Your task to perform on an android device: change timer sound Image 0: 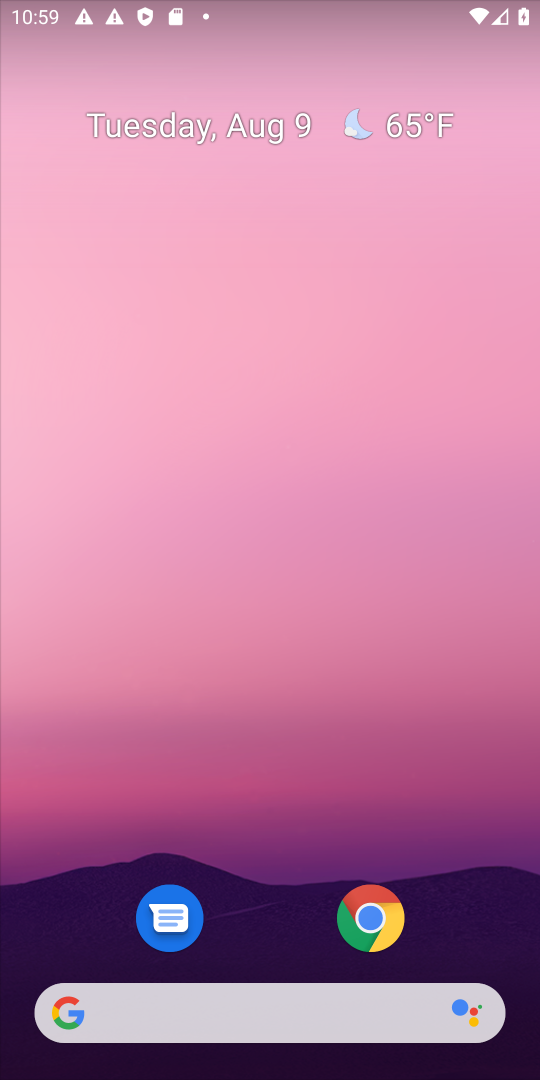
Step 0: drag from (252, 911) to (235, 139)
Your task to perform on an android device: change timer sound Image 1: 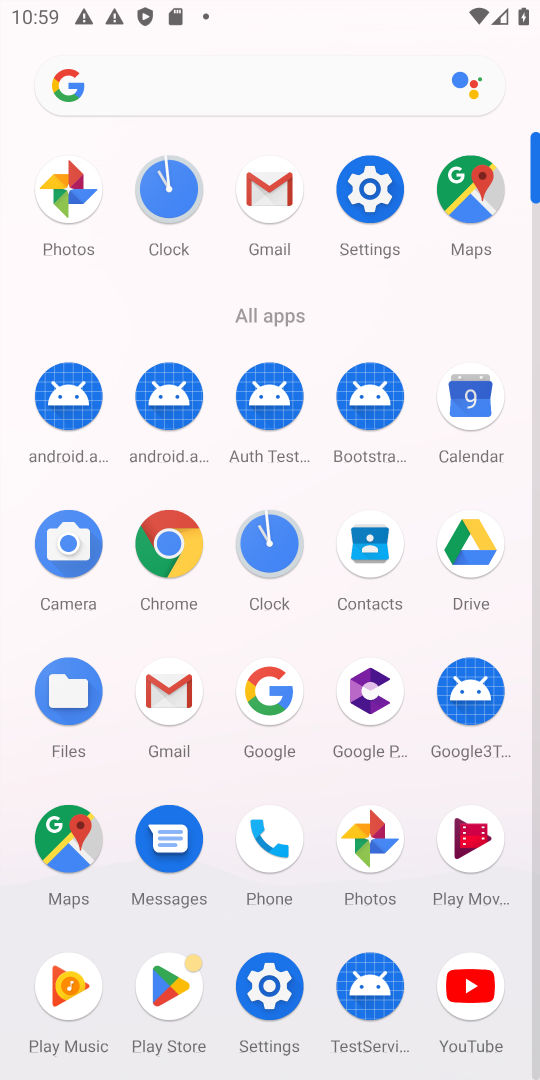
Step 1: click (274, 545)
Your task to perform on an android device: change timer sound Image 2: 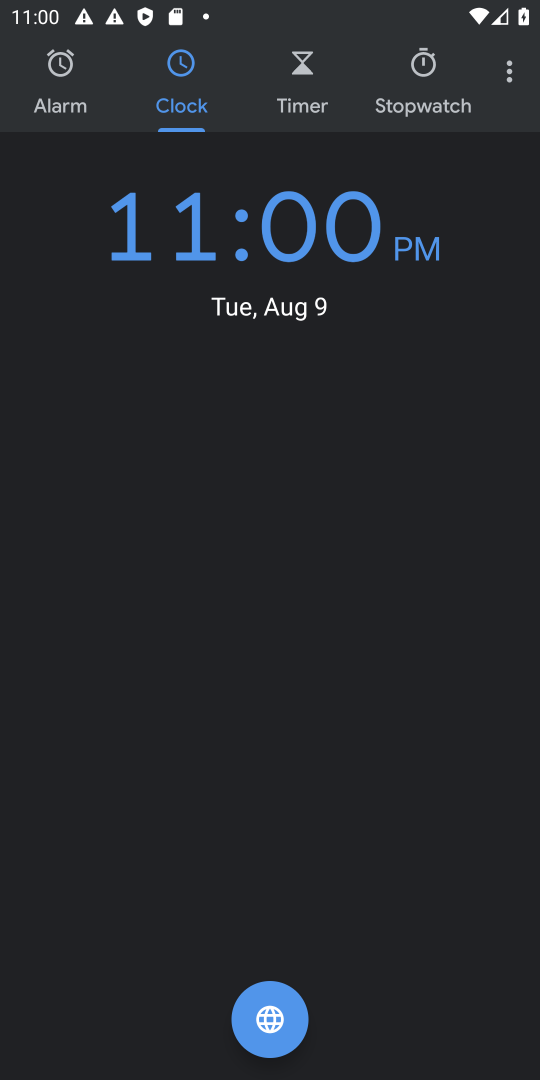
Step 2: click (517, 63)
Your task to perform on an android device: change timer sound Image 3: 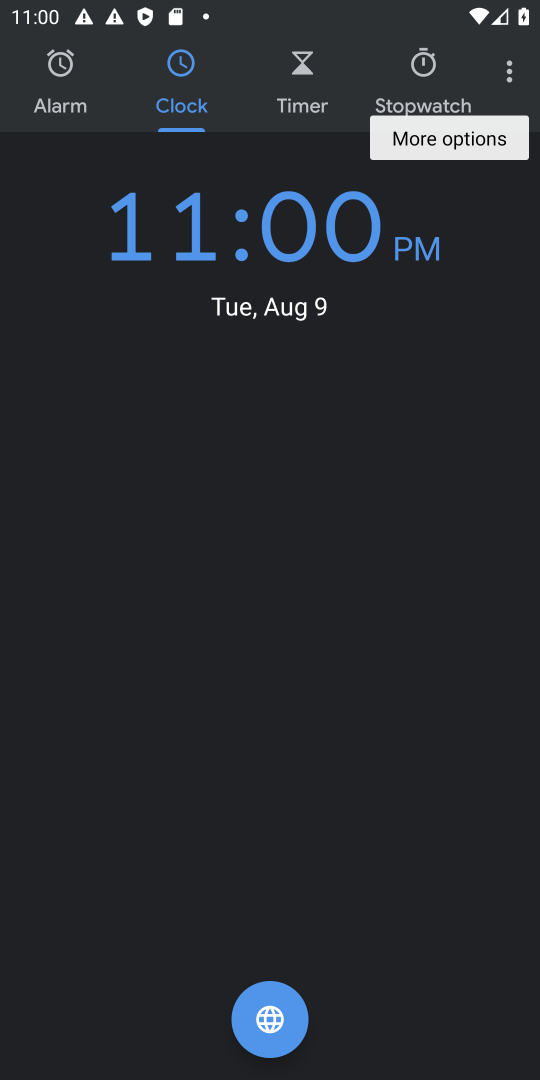
Step 3: click (508, 72)
Your task to perform on an android device: change timer sound Image 4: 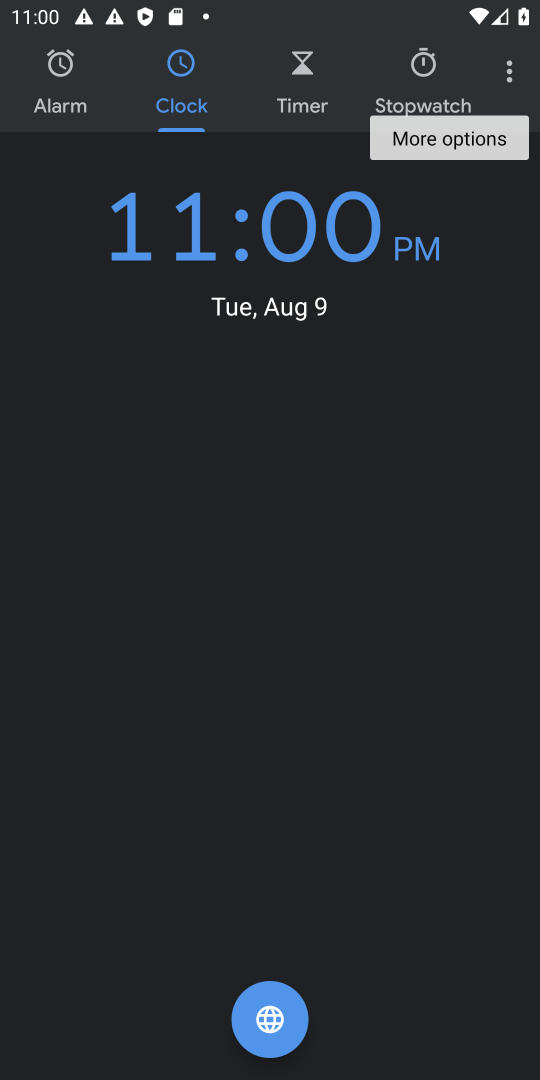
Step 4: click (500, 69)
Your task to perform on an android device: change timer sound Image 5: 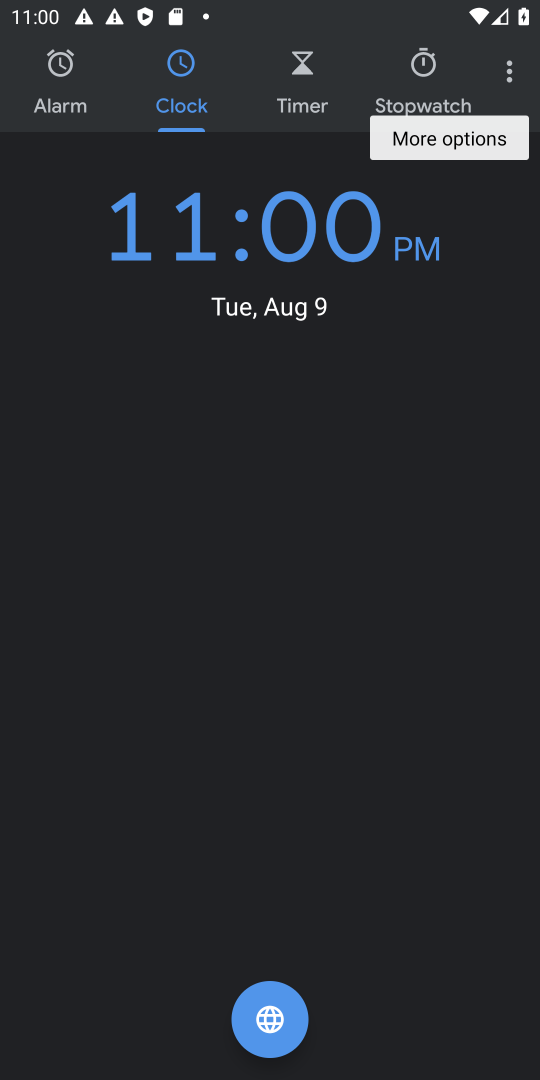
Step 5: click (498, 70)
Your task to perform on an android device: change timer sound Image 6: 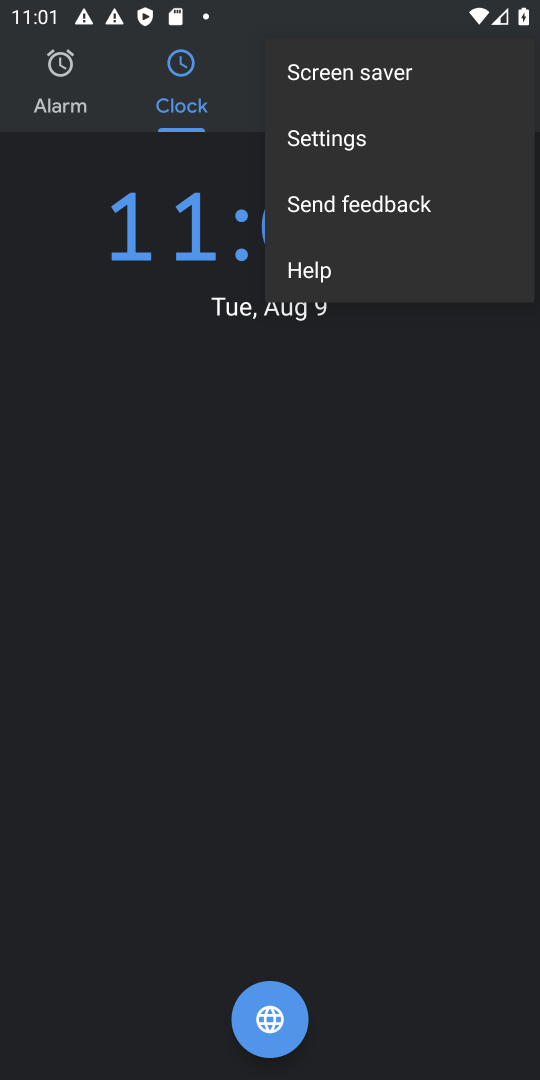
Step 6: click (318, 155)
Your task to perform on an android device: change timer sound Image 7: 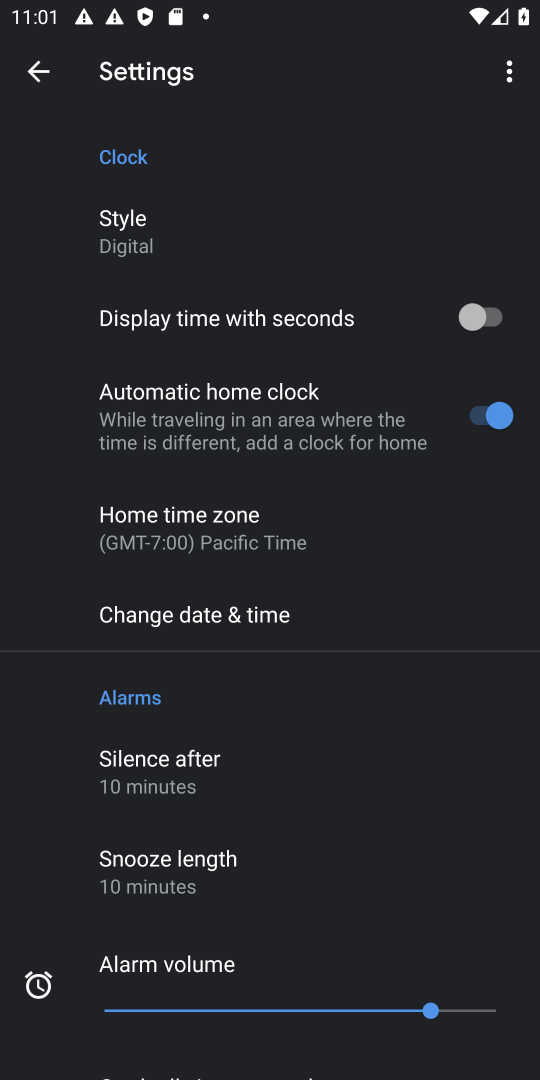
Step 7: drag from (399, 907) to (465, 456)
Your task to perform on an android device: change timer sound Image 8: 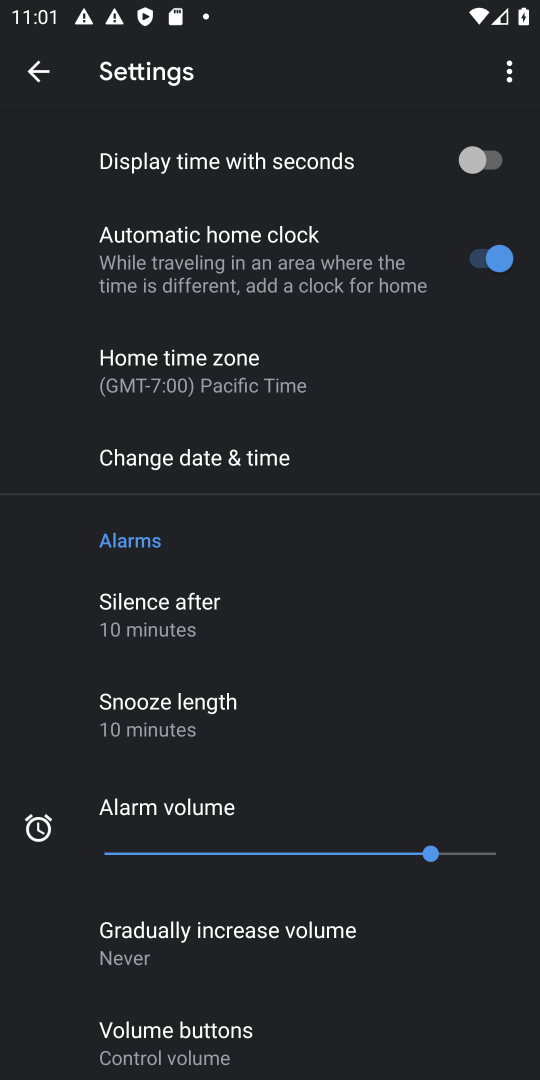
Step 8: drag from (293, 1024) to (388, 372)
Your task to perform on an android device: change timer sound Image 9: 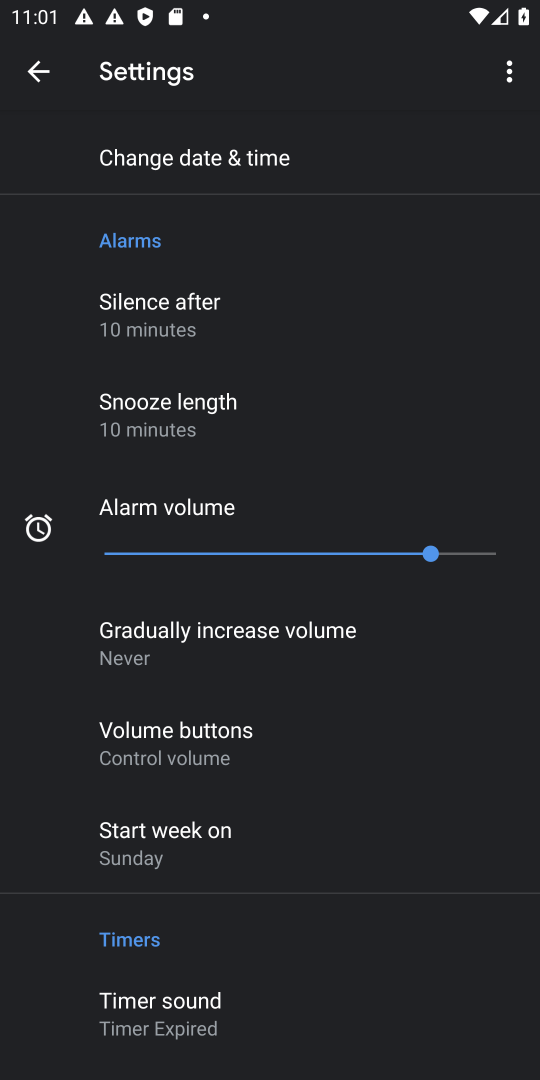
Step 9: click (180, 1036)
Your task to perform on an android device: change timer sound Image 10: 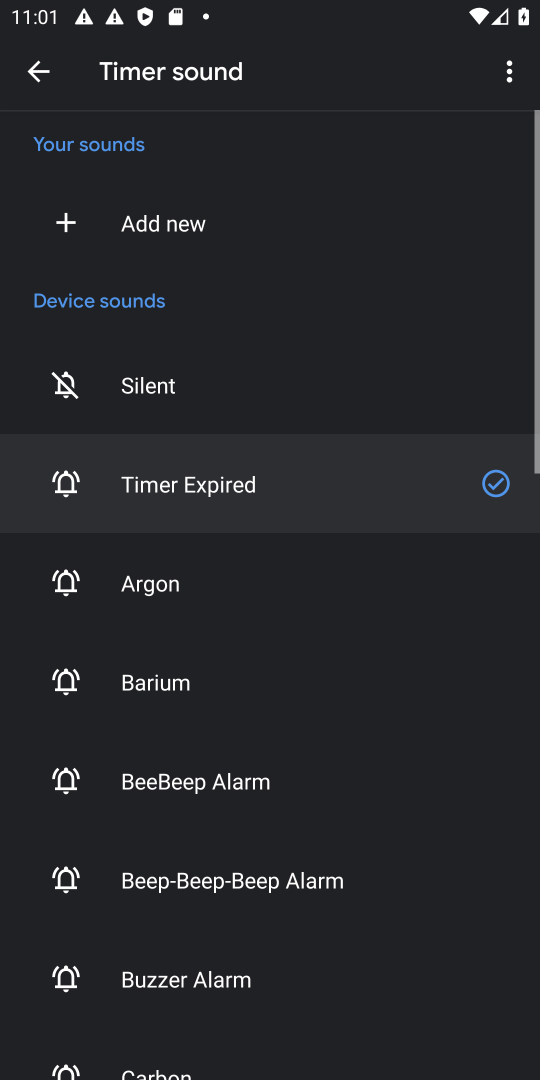
Step 10: click (197, 580)
Your task to perform on an android device: change timer sound Image 11: 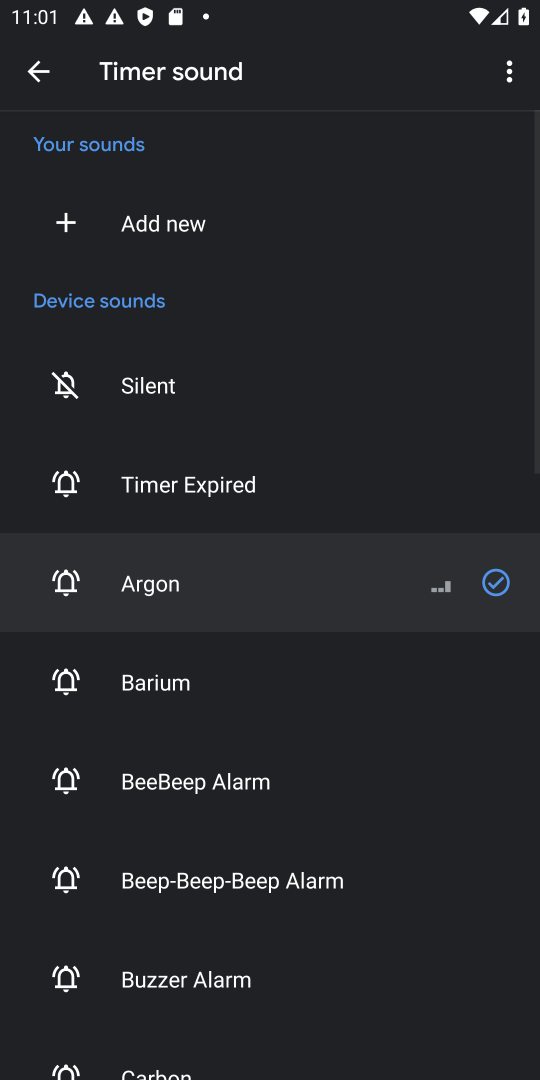
Step 11: task complete